Your task to perform on an android device: check battery use Image 0: 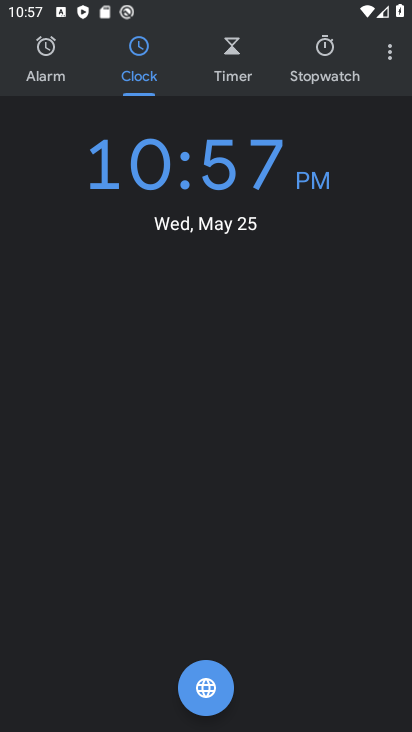
Step 0: press home button
Your task to perform on an android device: check battery use Image 1: 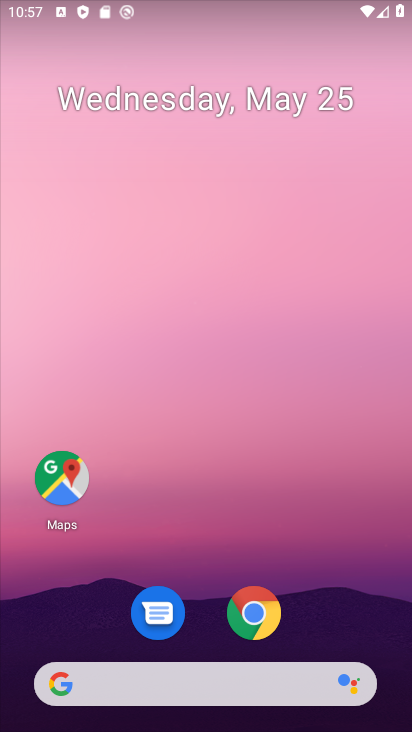
Step 1: drag from (163, 520) to (232, 47)
Your task to perform on an android device: check battery use Image 2: 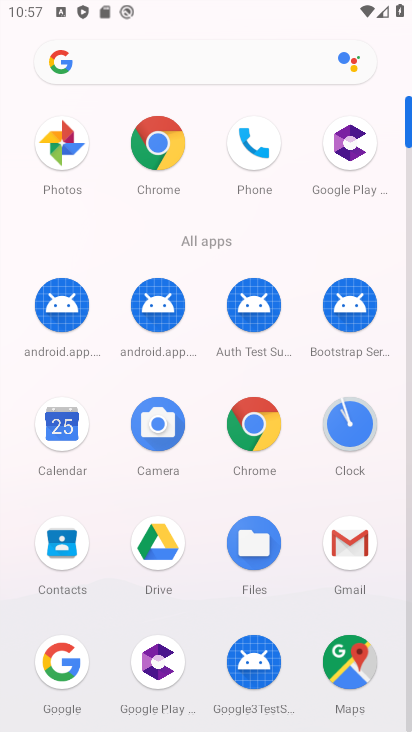
Step 2: drag from (199, 622) to (252, 222)
Your task to perform on an android device: check battery use Image 3: 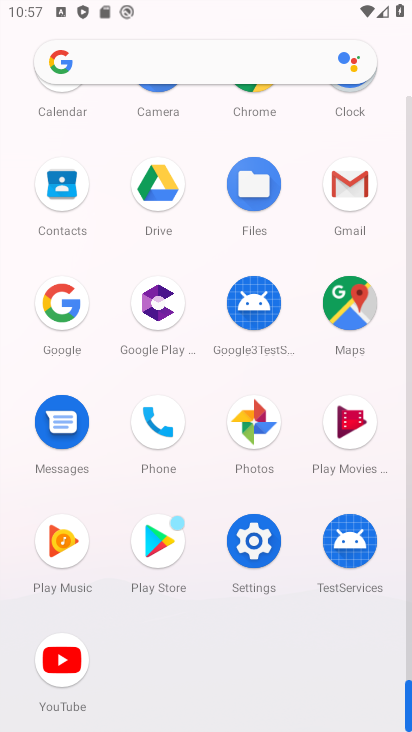
Step 3: click (253, 532)
Your task to perform on an android device: check battery use Image 4: 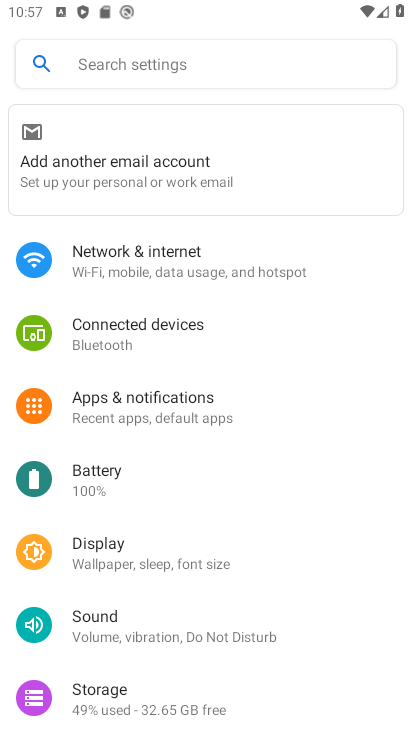
Step 4: click (177, 476)
Your task to perform on an android device: check battery use Image 5: 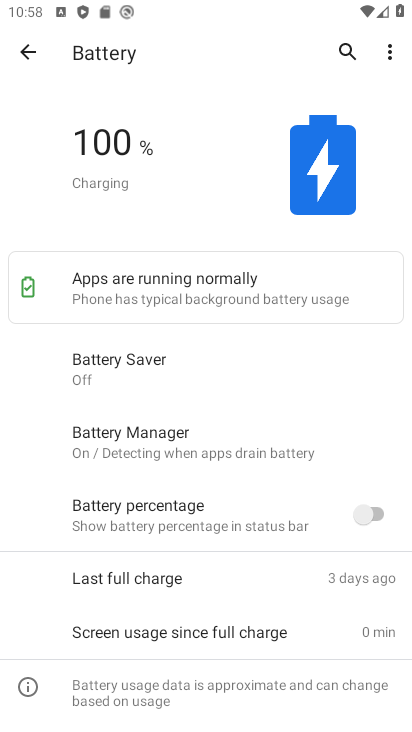
Step 5: task complete